Your task to perform on an android device: Show me popular videos on Youtube Image 0: 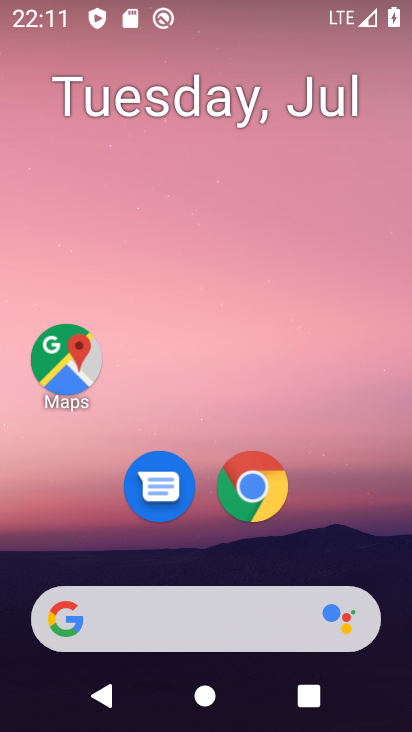
Step 0: press home button
Your task to perform on an android device: Show me popular videos on Youtube Image 1: 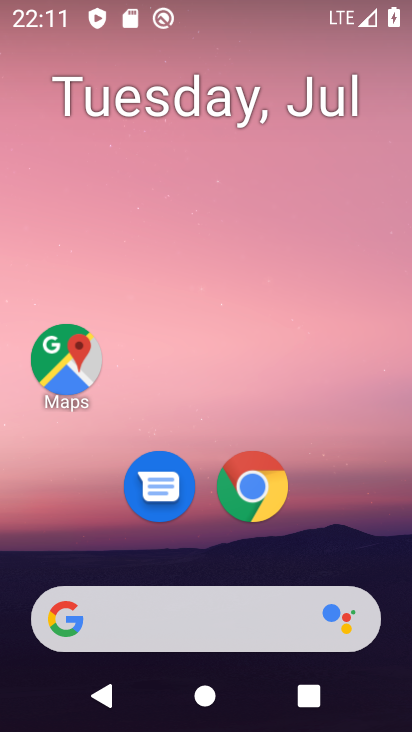
Step 1: drag from (362, 531) to (347, 163)
Your task to perform on an android device: Show me popular videos on Youtube Image 2: 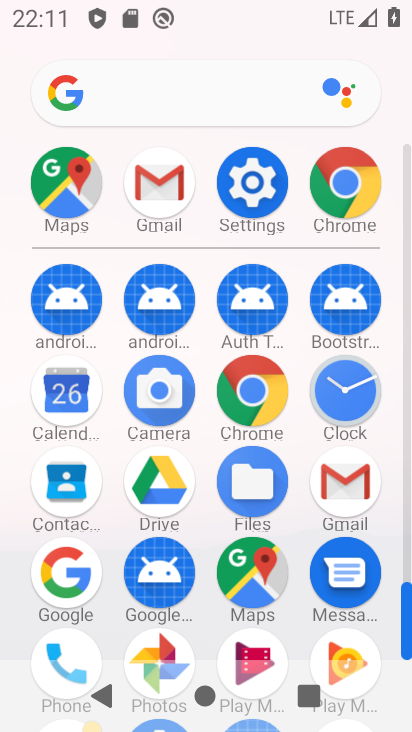
Step 2: drag from (395, 464) to (397, 282)
Your task to perform on an android device: Show me popular videos on Youtube Image 3: 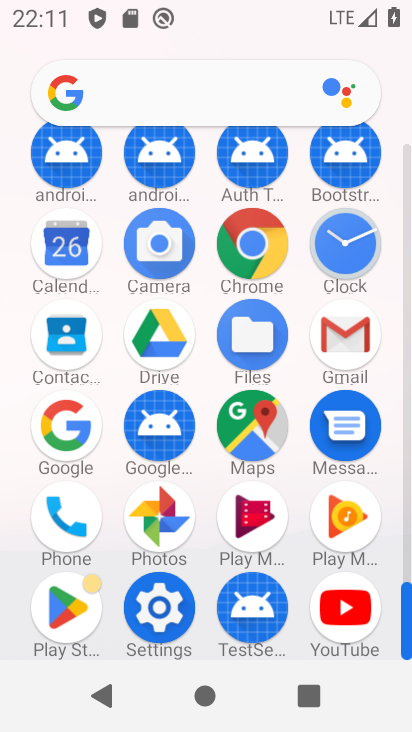
Step 3: click (354, 607)
Your task to perform on an android device: Show me popular videos on Youtube Image 4: 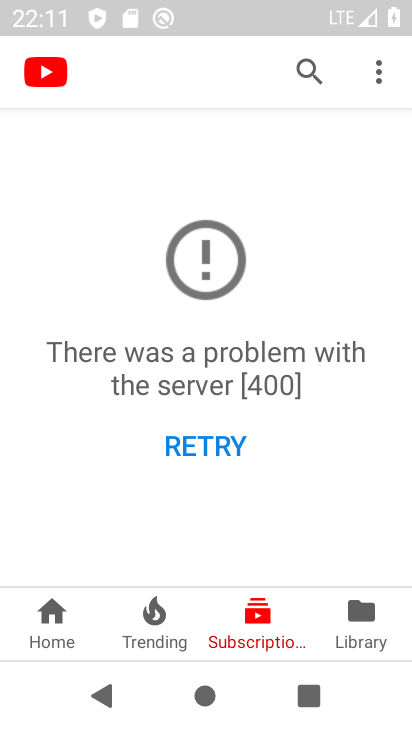
Step 4: click (59, 618)
Your task to perform on an android device: Show me popular videos on Youtube Image 5: 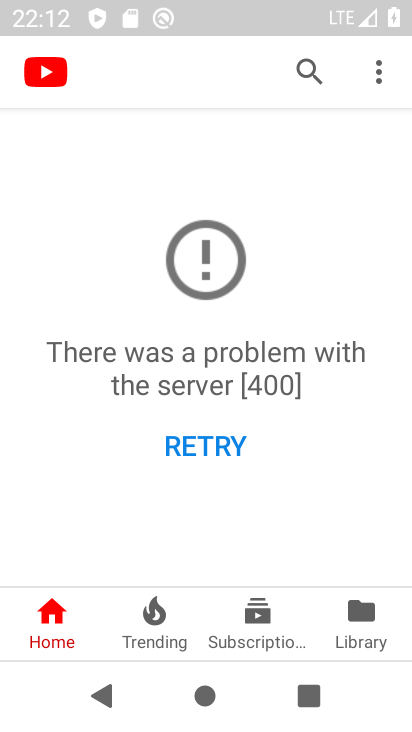
Step 5: task complete